Your task to perform on an android device: Show me productivity apps on the Play Store Image 0: 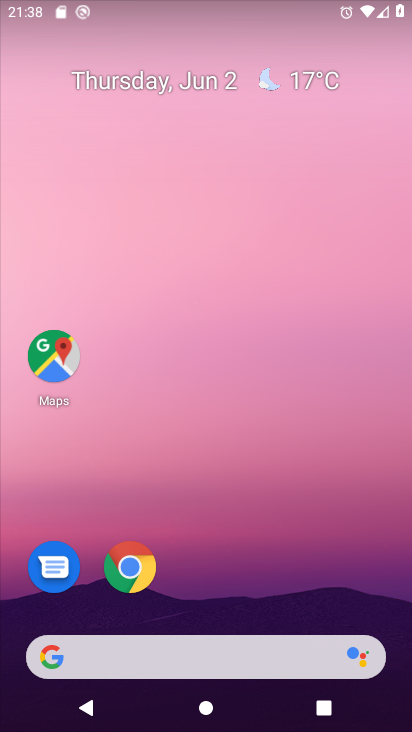
Step 0: drag from (229, 601) to (291, 236)
Your task to perform on an android device: Show me productivity apps on the Play Store Image 1: 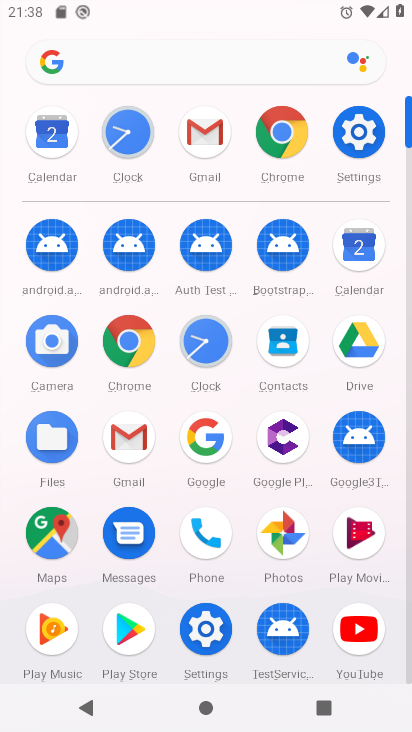
Step 1: click (136, 621)
Your task to perform on an android device: Show me productivity apps on the Play Store Image 2: 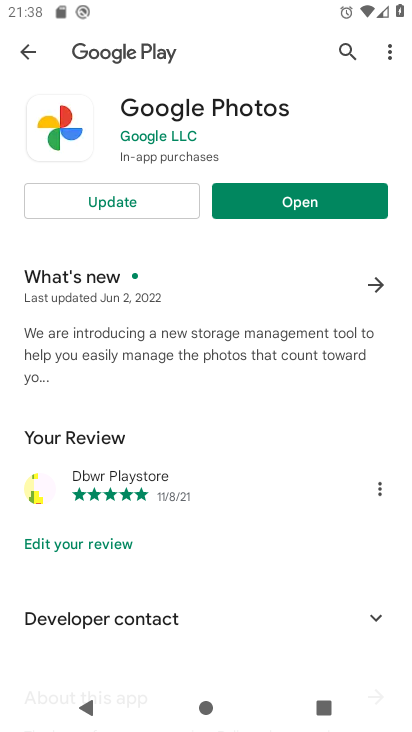
Step 2: click (34, 52)
Your task to perform on an android device: Show me productivity apps on the Play Store Image 3: 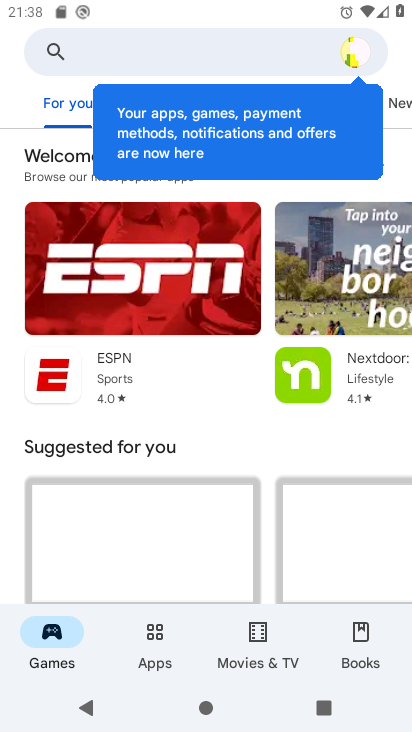
Step 3: click (147, 642)
Your task to perform on an android device: Show me productivity apps on the Play Store Image 4: 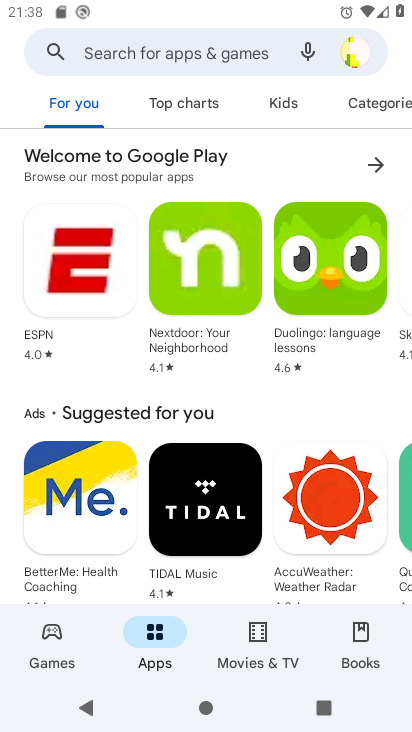
Step 4: click (390, 97)
Your task to perform on an android device: Show me productivity apps on the Play Store Image 5: 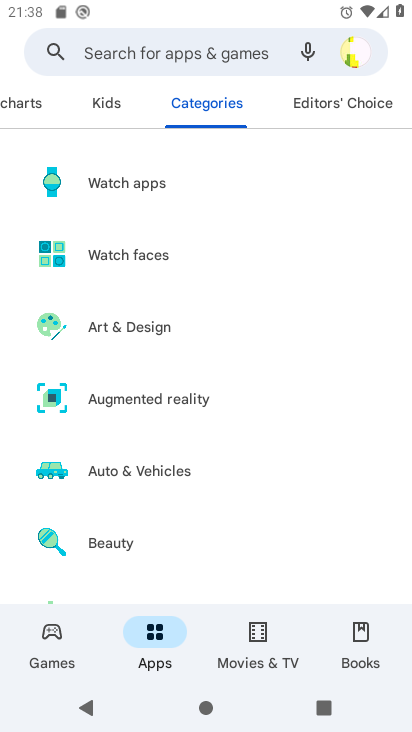
Step 5: drag from (184, 502) to (263, 42)
Your task to perform on an android device: Show me productivity apps on the Play Store Image 6: 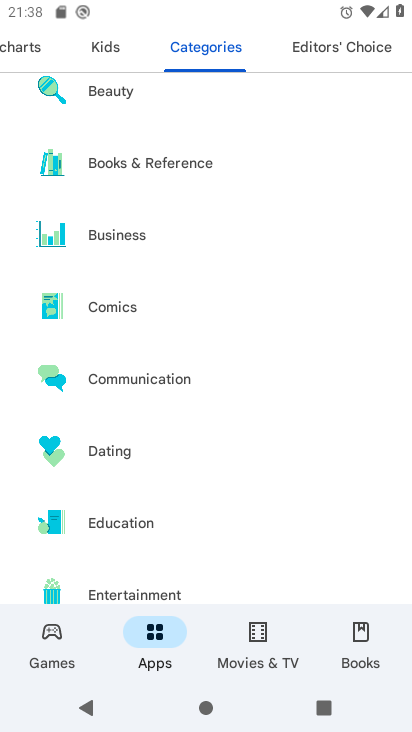
Step 6: drag from (199, 533) to (237, 84)
Your task to perform on an android device: Show me productivity apps on the Play Store Image 7: 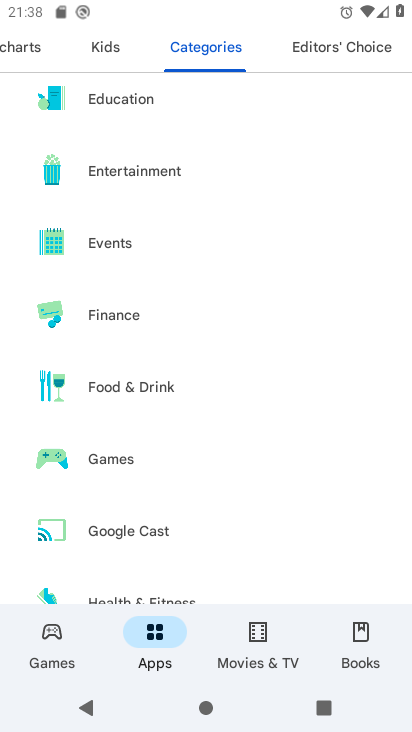
Step 7: drag from (196, 489) to (244, 161)
Your task to perform on an android device: Show me productivity apps on the Play Store Image 8: 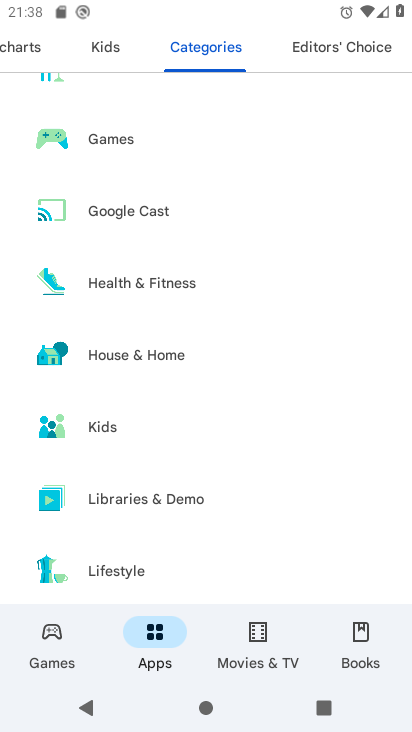
Step 8: drag from (176, 476) to (299, 2)
Your task to perform on an android device: Show me productivity apps on the Play Store Image 9: 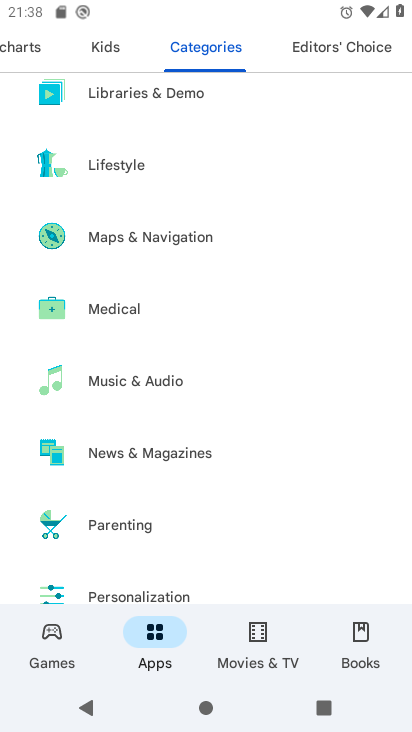
Step 9: drag from (163, 547) to (187, 192)
Your task to perform on an android device: Show me productivity apps on the Play Store Image 10: 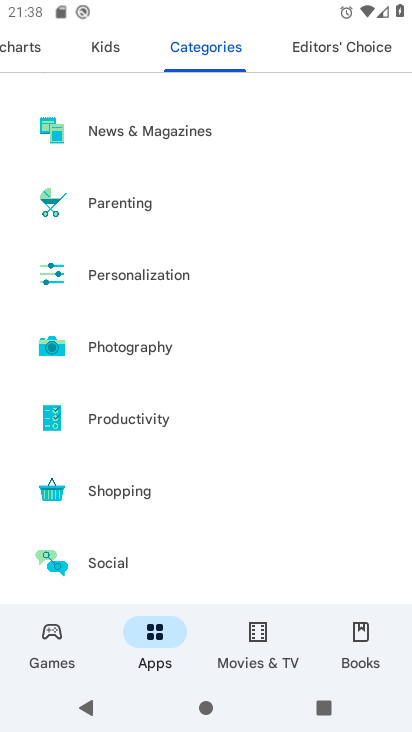
Step 10: click (135, 425)
Your task to perform on an android device: Show me productivity apps on the Play Store Image 11: 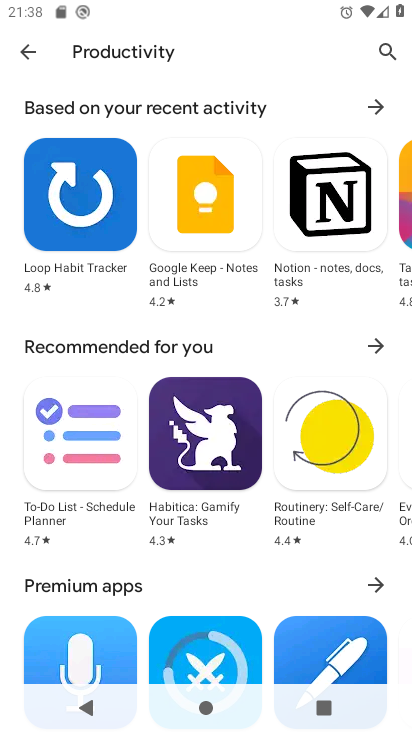
Step 11: task complete